Your task to perform on an android device: Open Amazon Image 0: 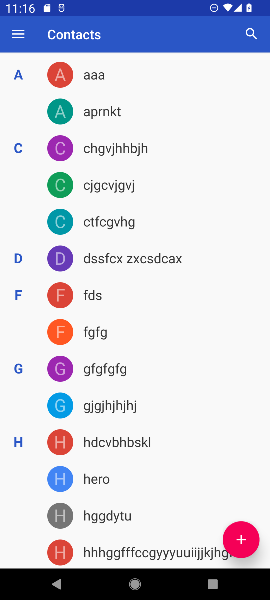
Step 0: press back button
Your task to perform on an android device: Open Amazon Image 1: 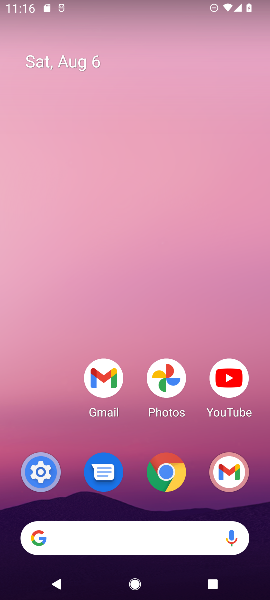
Step 1: drag from (153, 479) to (90, 94)
Your task to perform on an android device: Open Amazon Image 2: 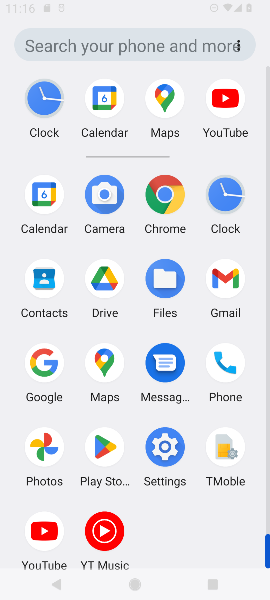
Step 2: drag from (159, 383) to (111, 106)
Your task to perform on an android device: Open Amazon Image 3: 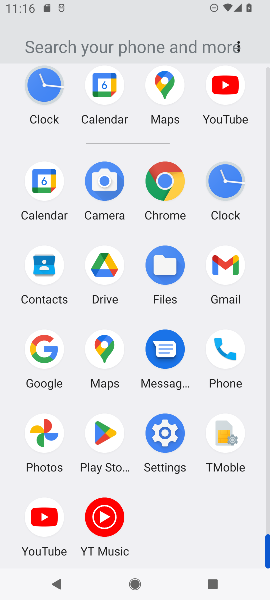
Step 3: click (161, 187)
Your task to perform on an android device: Open Amazon Image 4: 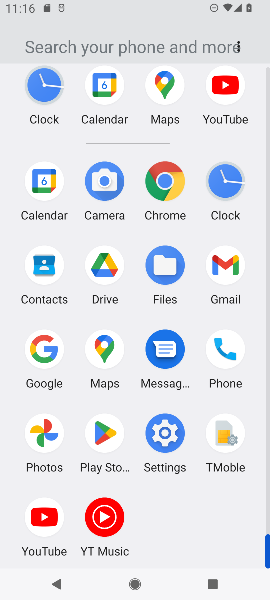
Step 4: click (161, 187)
Your task to perform on an android device: Open Amazon Image 5: 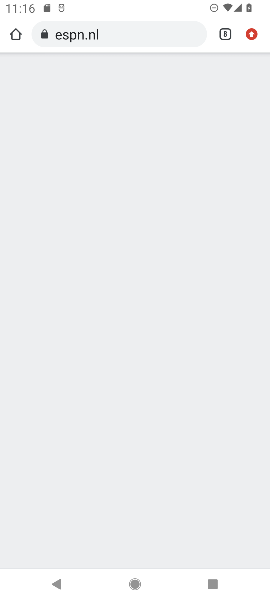
Step 5: drag from (244, 32) to (182, 491)
Your task to perform on an android device: Open Amazon Image 6: 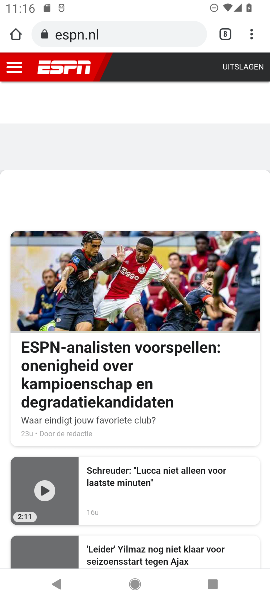
Step 6: drag from (240, 37) to (160, 111)
Your task to perform on an android device: Open Amazon Image 7: 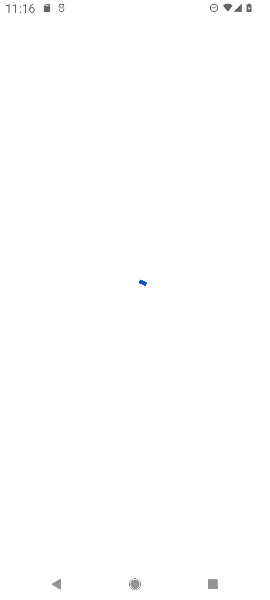
Step 7: click (160, 110)
Your task to perform on an android device: Open Amazon Image 8: 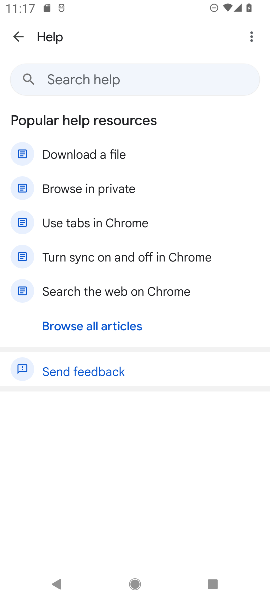
Step 8: click (16, 28)
Your task to perform on an android device: Open Amazon Image 9: 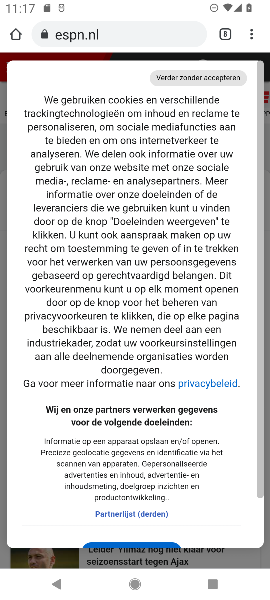
Step 9: click (247, 35)
Your task to perform on an android device: Open Amazon Image 10: 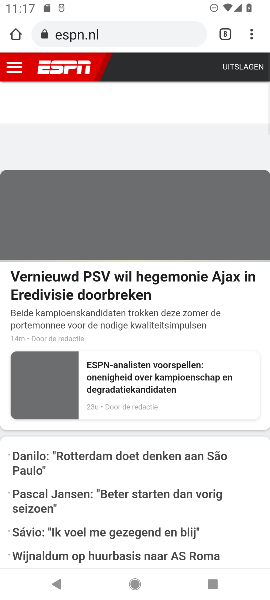
Step 10: drag from (255, 26) to (141, 114)
Your task to perform on an android device: Open Amazon Image 11: 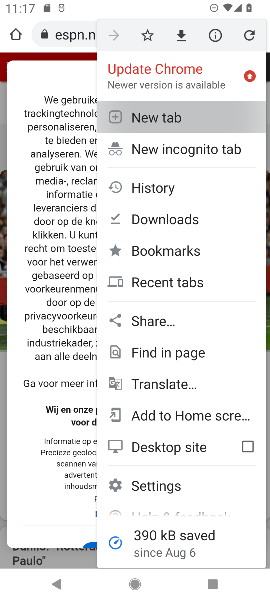
Step 11: click (141, 115)
Your task to perform on an android device: Open Amazon Image 12: 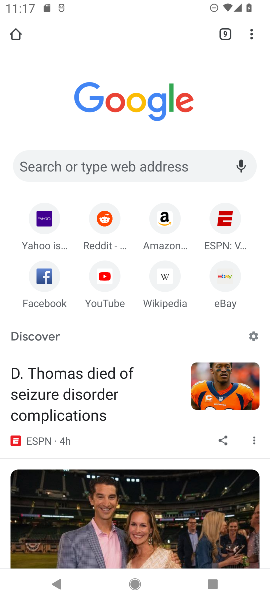
Step 12: click (161, 215)
Your task to perform on an android device: Open Amazon Image 13: 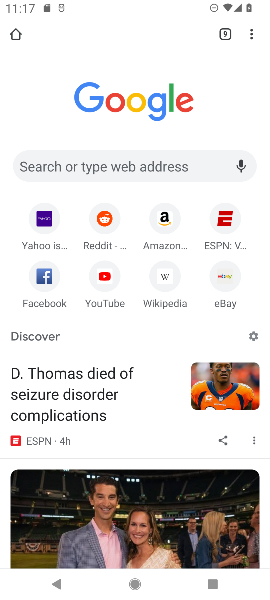
Step 13: click (166, 220)
Your task to perform on an android device: Open Amazon Image 14: 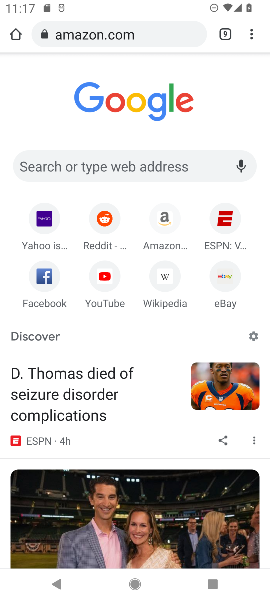
Step 14: click (167, 220)
Your task to perform on an android device: Open Amazon Image 15: 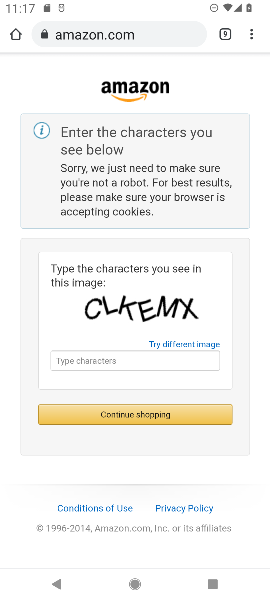
Step 15: task complete